Your task to perform on an android device: turn on javascript in the chrome app Image 0: 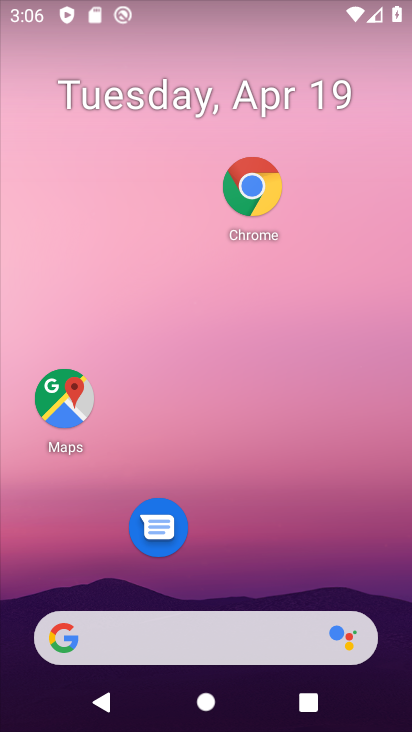
Step 0: drag from (293, 531) to (345, 31)
Your task to perform on an android device: turn on javascript in the chrome app Image 1: 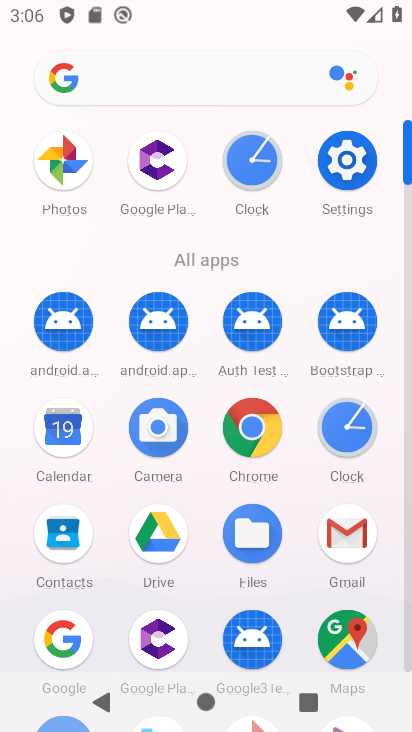
Step 1: click (255, 431)
Your task to perform on an android device: turn on javascript in the chrome app Image 2: 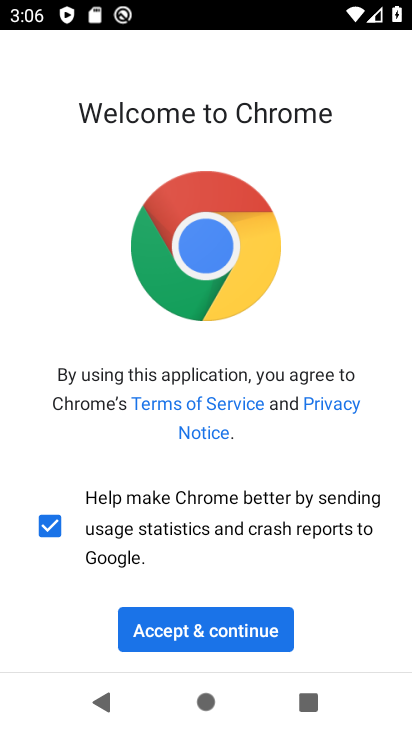
Step 2: click (201, 626)
Your task to perform on an android device: turn on javascript in the chrome app Image 3: 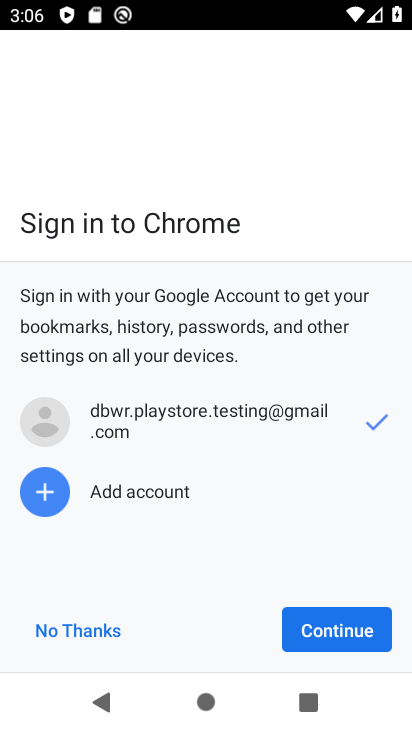
Step 3: click (324, 617)
Your task to perform on an android device: turn on javascript in the chrome app Image 4: 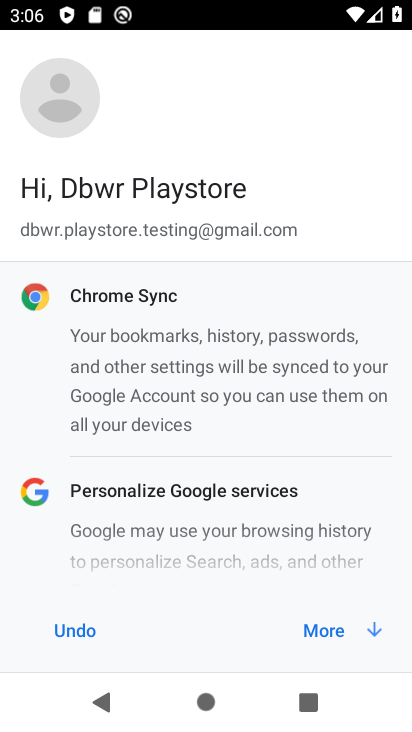
Step 4: click (327, 636)
Your task to perform on an android device: turn on javascript in the chrome app Image 5: 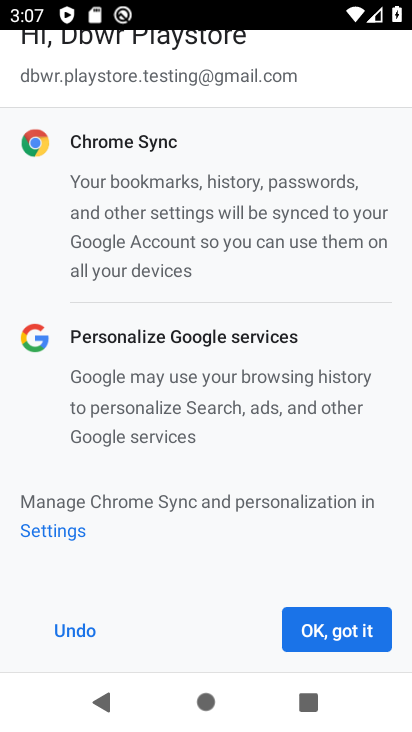
Step 5: click (340, 615)
Your task to perform on an android device: turn on javascript in the chrome app Image 6: 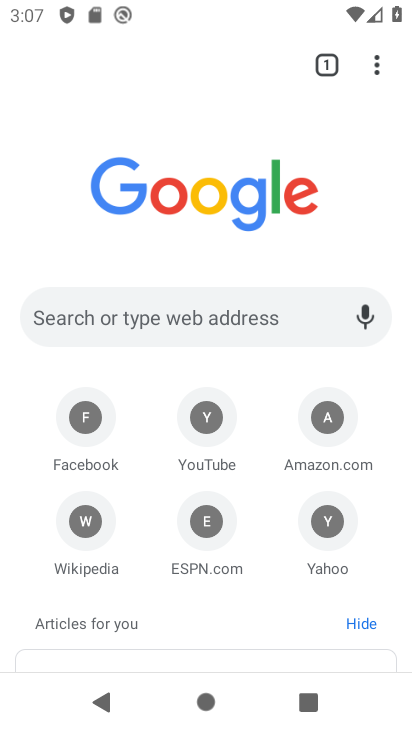
Step 6: click (371, 57)
Your task to perform on an android device: turn on javascript in the chrome app Image 7: 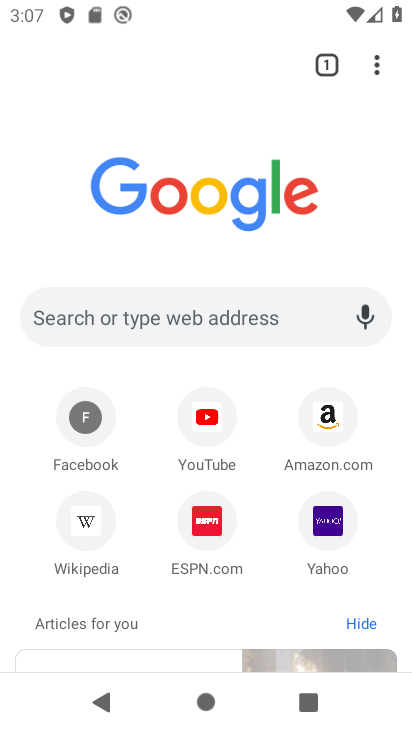
Step 7: click (379, 62)
Your task to perform on an android device: turn on javascript in the chrome app Image 8: 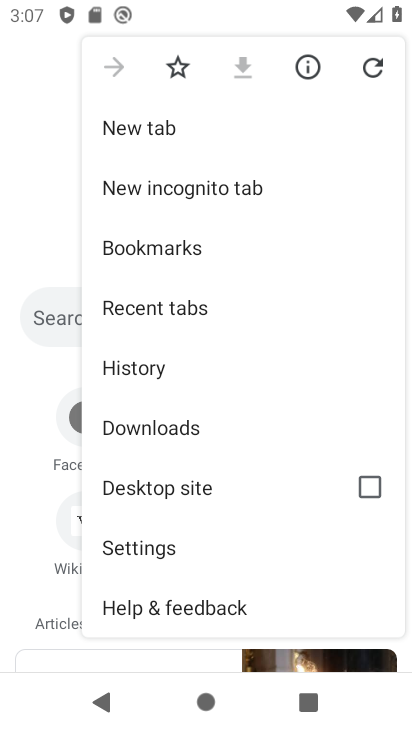
Step 8: click (151, 554)
Your task to perform on an android device: turn on javascript in the chrome app Image 9: 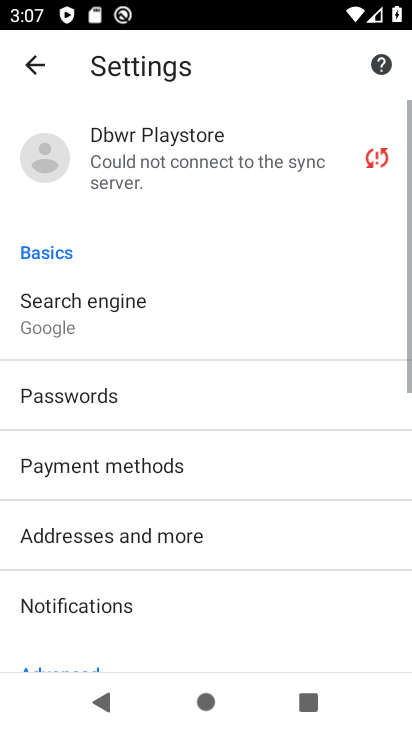
Step 9: drag from (156, 571) to (211, 161)
Your task to perform on an android device: turn on javascript in the chrome app Image 10: 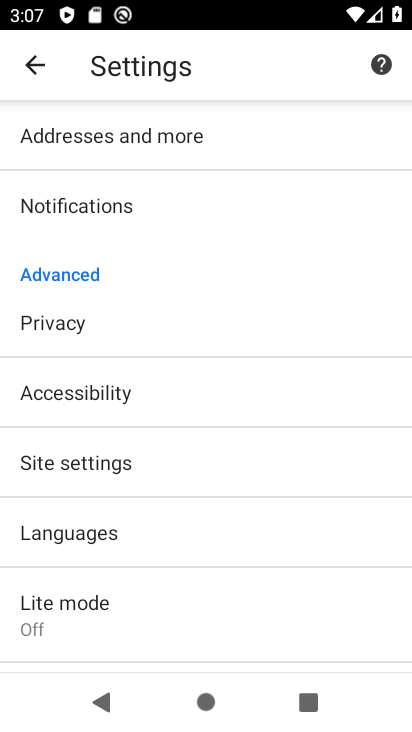
Step 10: click (143, 460)
Your task to perform on an android device: turn on javascript in the chrome app Image 11: 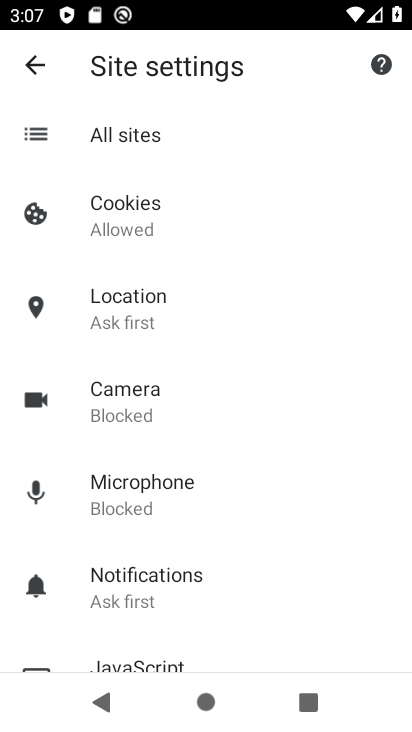
Step 11: drag from (198, 597) to (252, 303)
Your task to perform on an android device: turn on javascript in the chrome app Image 12: 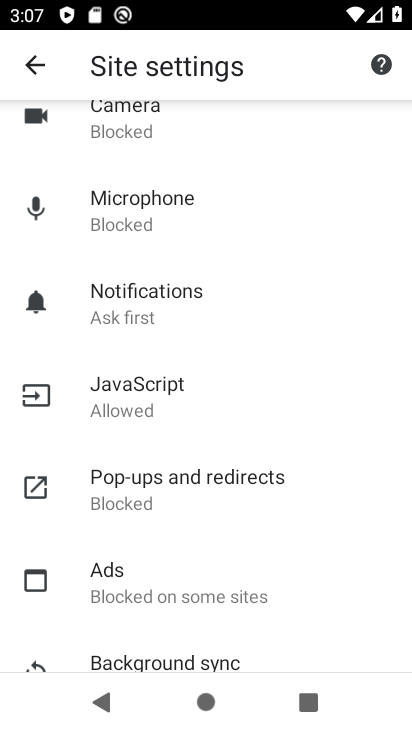
Step 12: click (184, 388)
Your task to perform on an android device: turn on javascript in the chrome app Image 13: 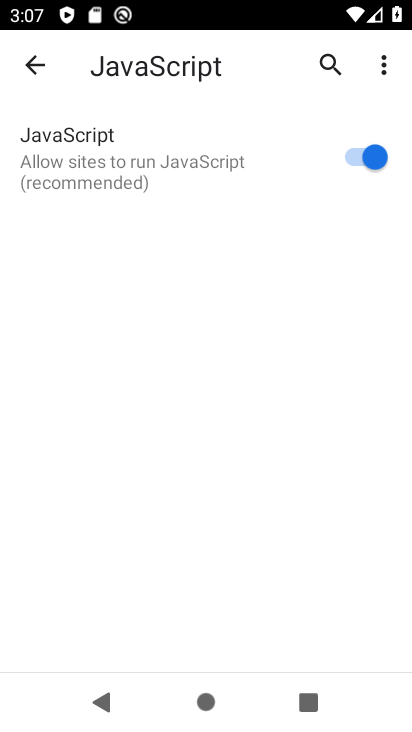
Step 13: task complete